Your task to perform on an android device: What's the weather? Image 0: 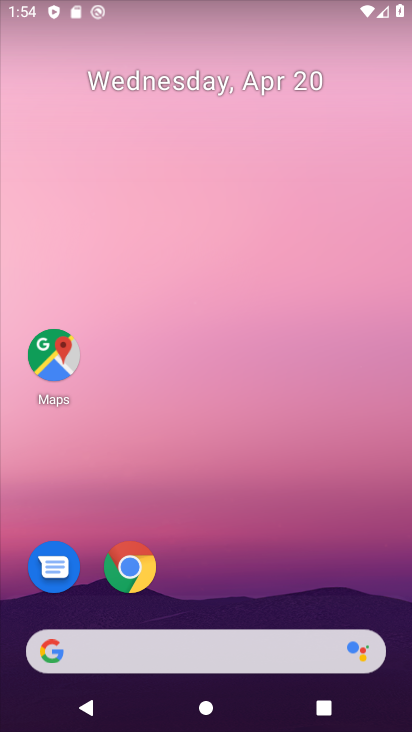
Step 0: drag from (256, 483) to (245, 108)
Your task to perform on an android device: What's the weather? Image 1: 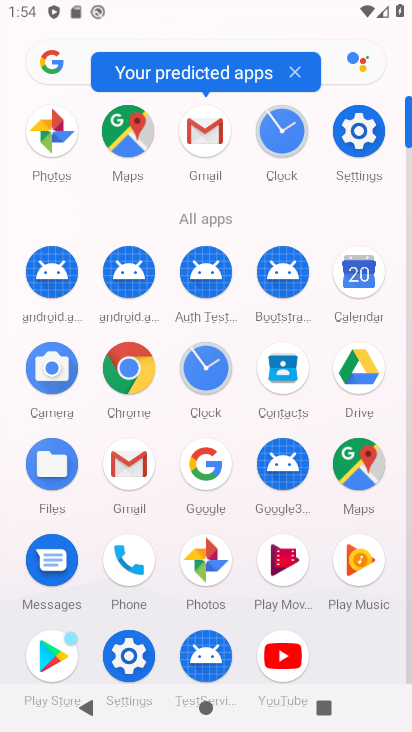
Step 1: click (208, 467)
Your task to perform on an android device: What's the weather? Image 2: 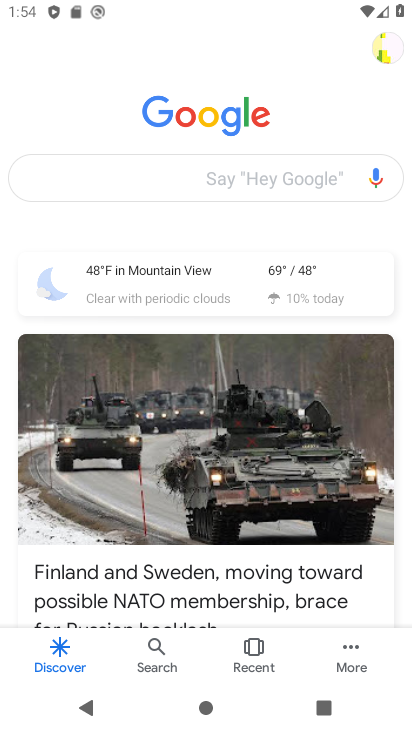
Step 2: click (238, 176)
Your task to perform on an android device: What's the weather? Image 3: 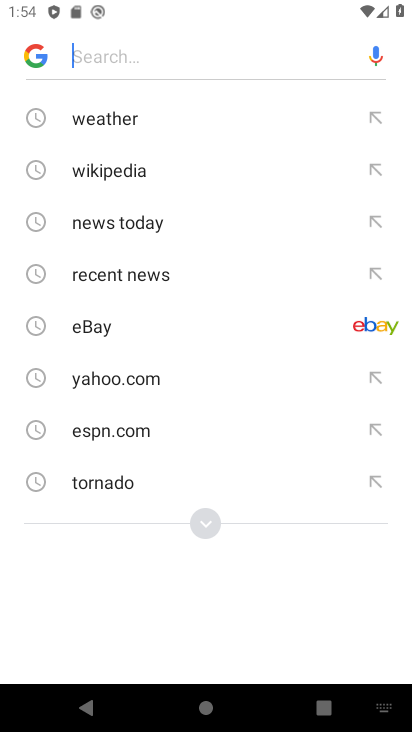
Step 3: click (138, 121)
Your task to perform on an android device: What's the weather? Image 4: 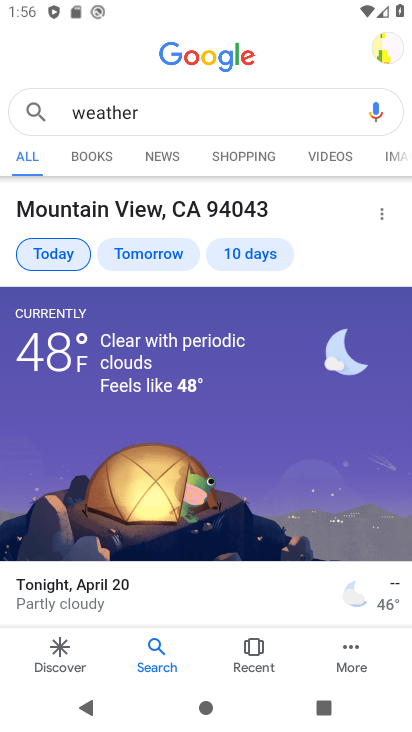
Step 4: task complete